Your task to perform on an android device: Open Google Image 0: 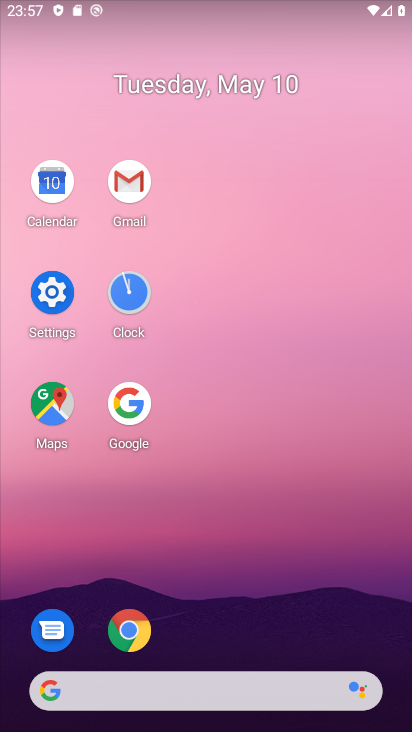
Step 0: click (122, 401)
Your task to perform on an android device: Open Google Image 1: 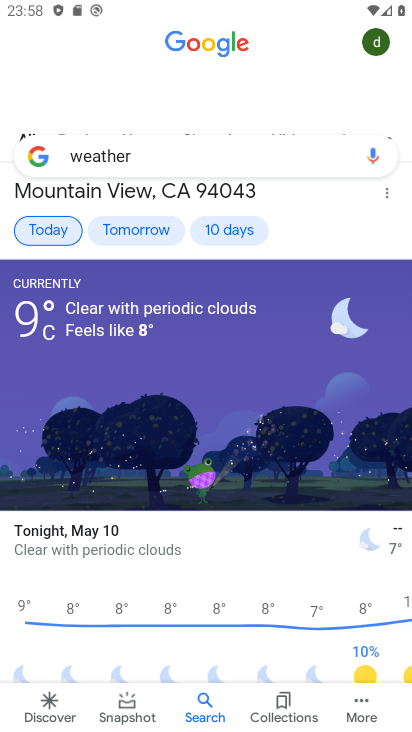
Step 1: task complete